Your task to perform on an android device: add a contact in the contacts app Image 0: 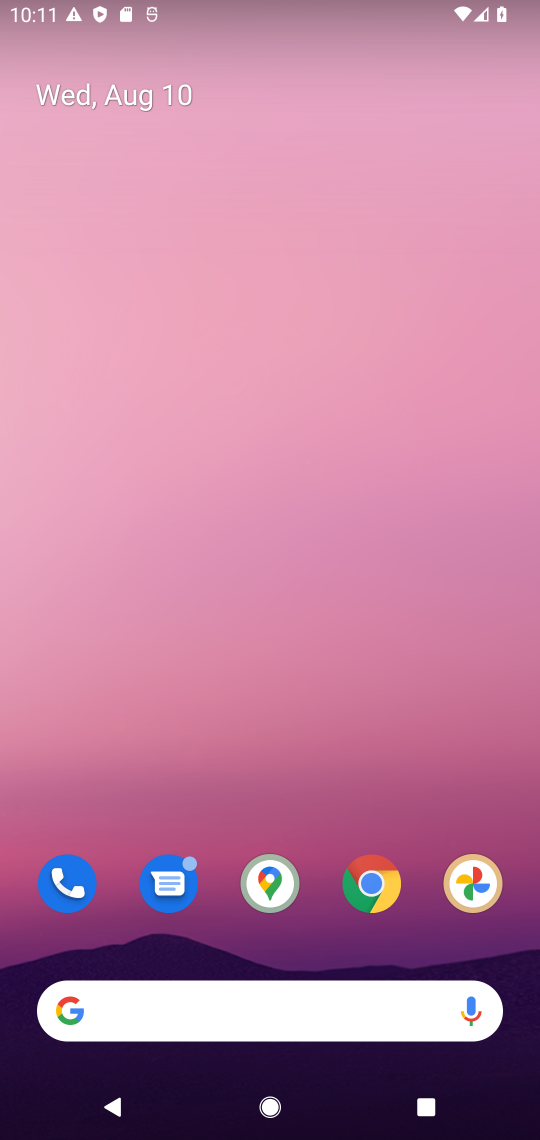
Step 0: drag from (339, 929) to (301, 128)
Your task to perform on an android device: add a contact in the contacts app Image 1: 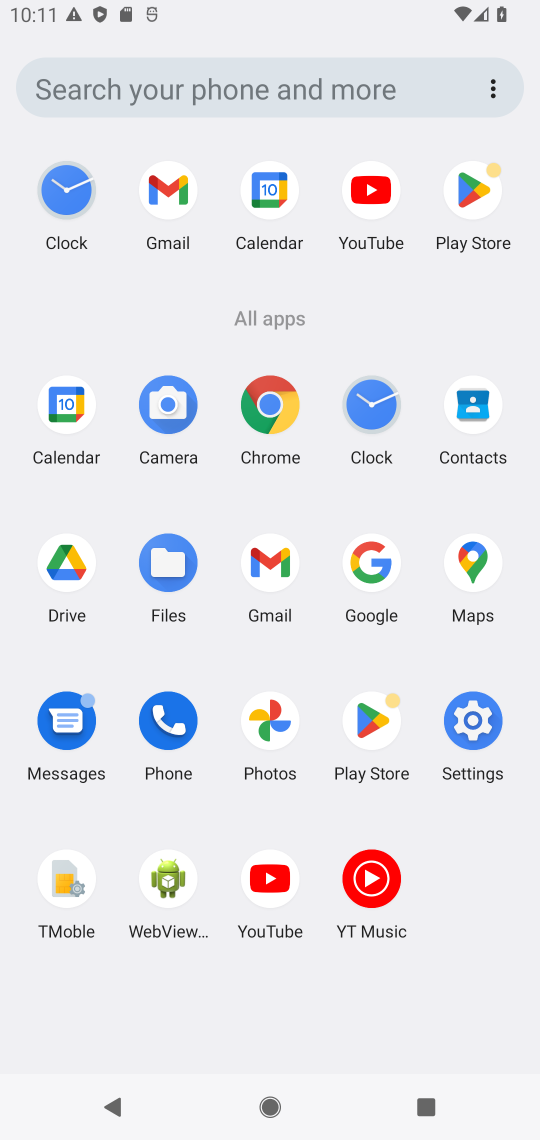
Step 1: click (472, 397)
Your task to perform on an android device: add a contact in the contacts app Image 2: 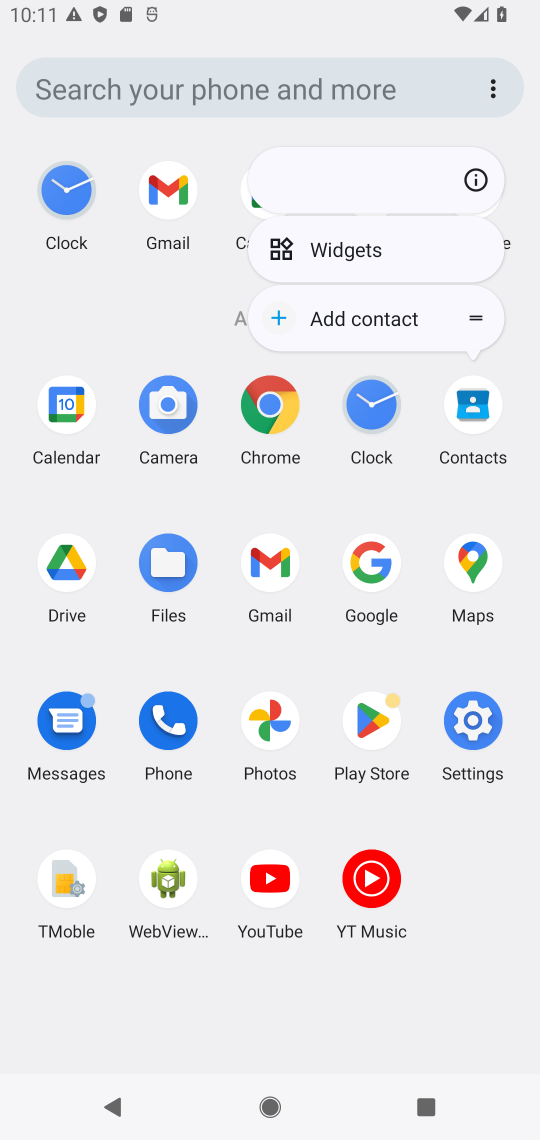
Step 2: click (478, 406)
Your task to perform on an android device: add a contact in the contacts app Image 3: 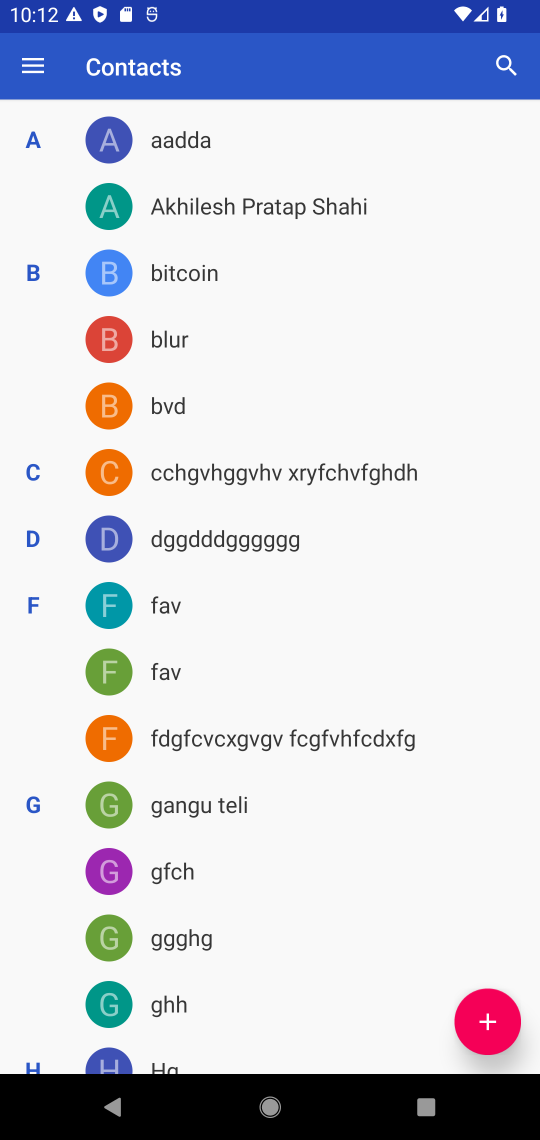
Step 3: click (503, 1020)
Your task to perform on an android device: add a contact in the contacts app Image 4: 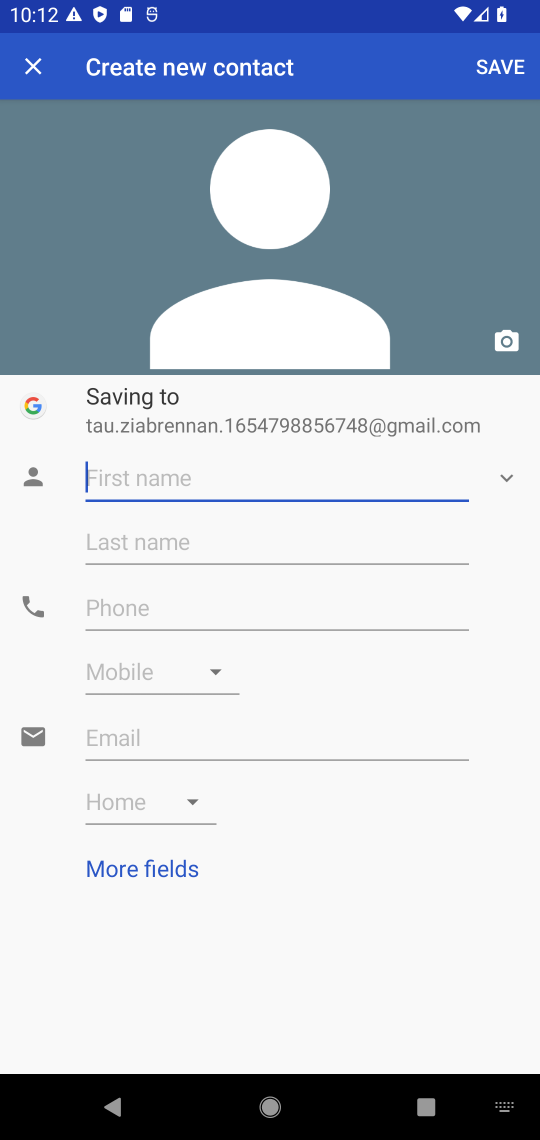
Step 4: type "rrrr"
Your task to perform on an android device: add a contact in the contacts app Image 5: 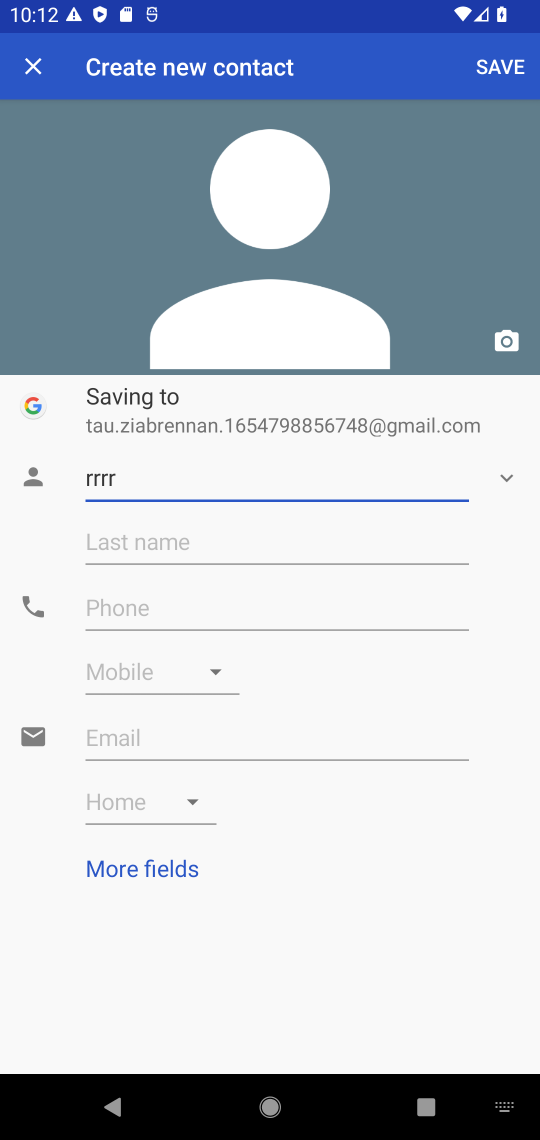
Step 5: click (244, 588)
Your task to perform on an android device: add a contact in the contacts app Image 6: 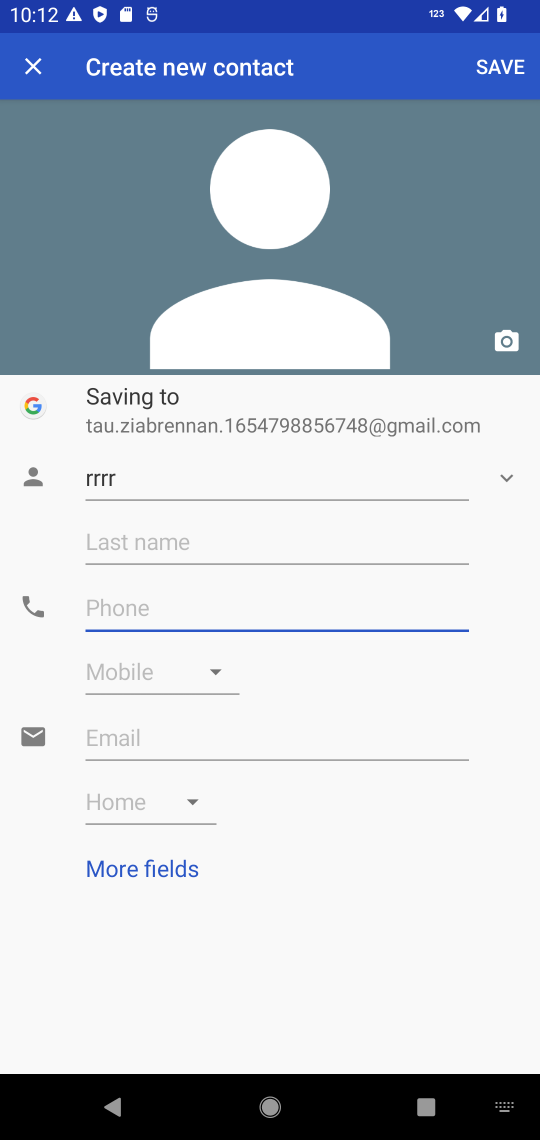
Step 6: type "9870"
Your task to perform on an android device: add a contact in the contacts app Image 7: 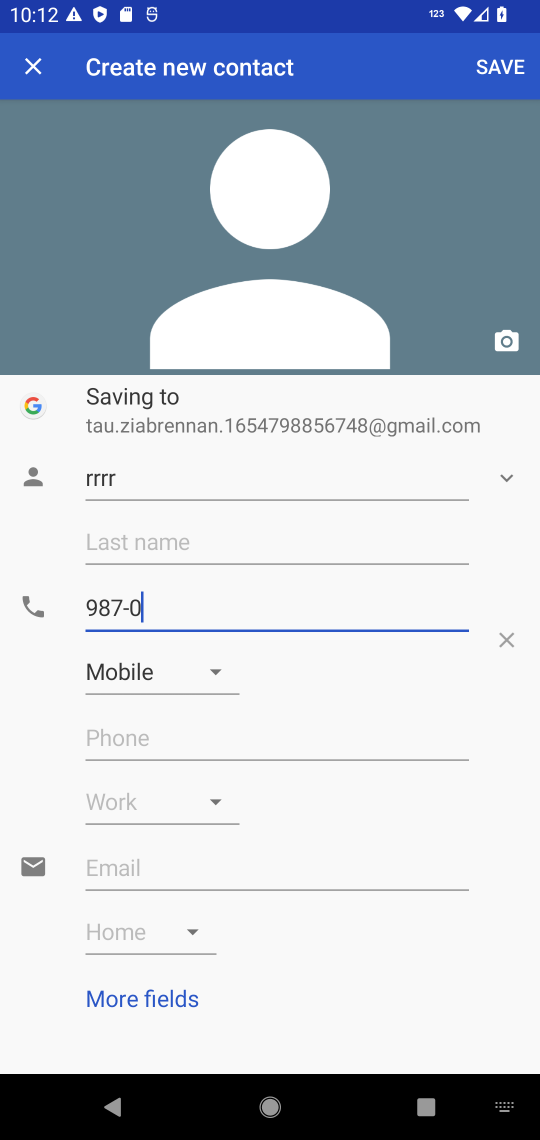
Step 7: click (495, 71)
Your task to perform on an android device: add a contact in the contacts app Image 8: 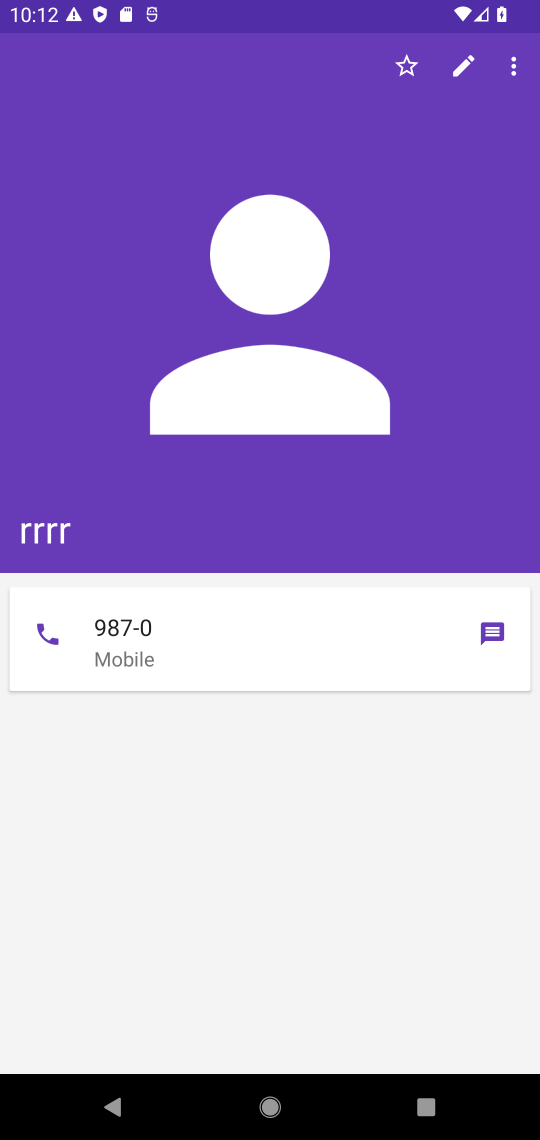
Step 8: task complete